Your task to perform on an android device: Show me popular videos on Youtube Image 0: 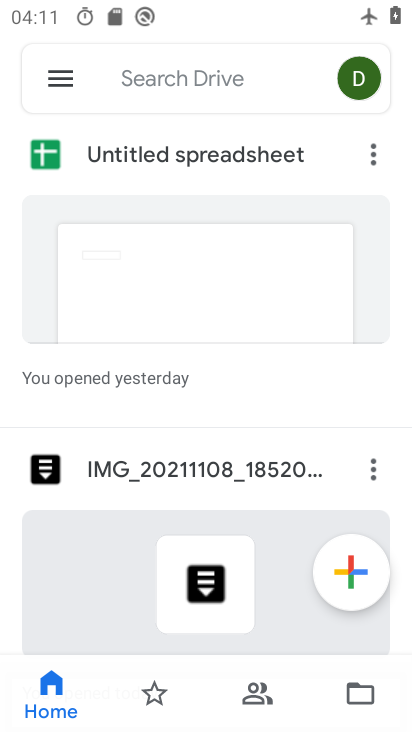
Step 0: press home button
Your task to perform on an android device: Show me popular videos on Youtube Image 1: 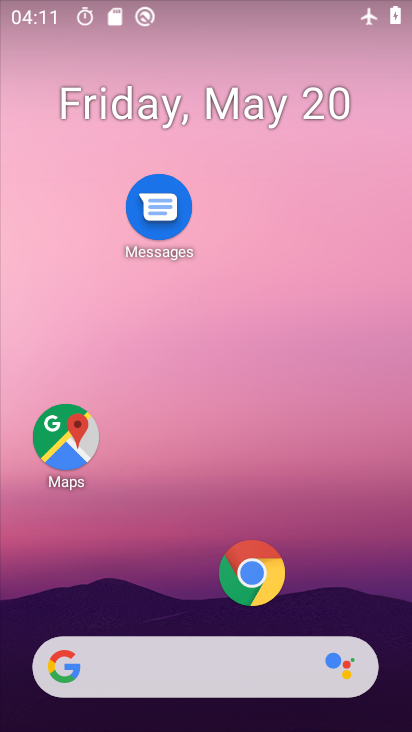
Step 1: drag from (200, 618) to (203, 143)
Your task to perform on an android device: Show me popular videos on Youtube Image 2: 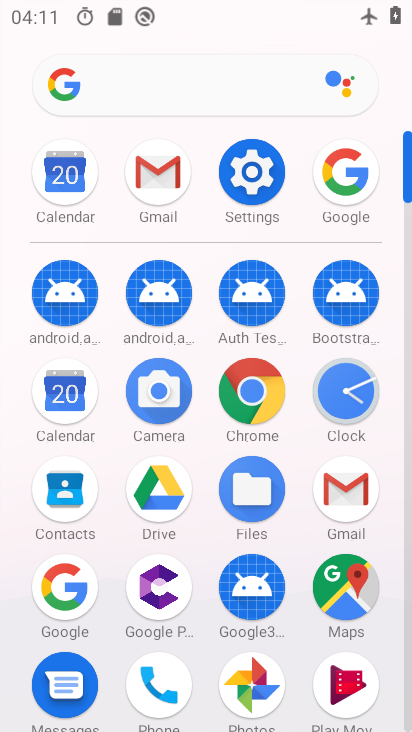
Step 2: drag from (302, 629) to (290, 157)
Your task to perform on an android device: Show me popular videos on Youtube Image 3: 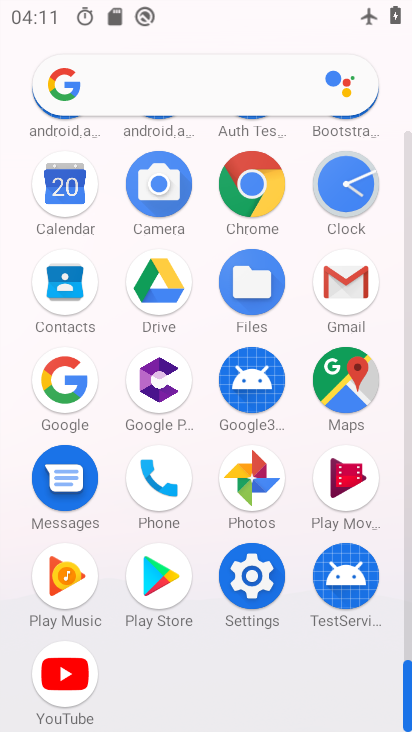
Step 3: click (43, 679)
Your task to perform on an android device: Show me popular videos on Youtube Image 4: 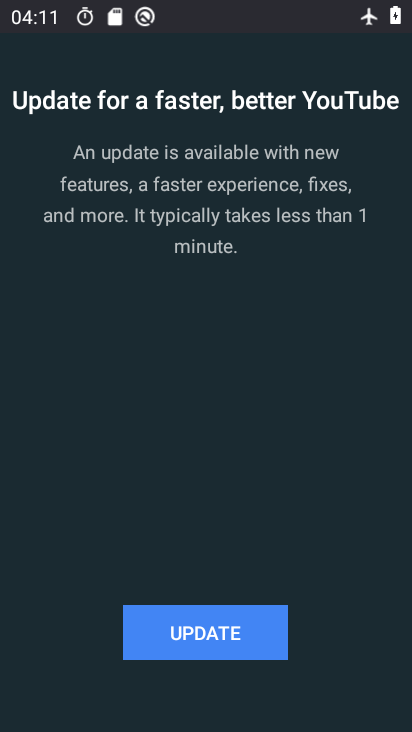
Step 4: click (249, 630)
Your task to perform on an android device: Show me popular videos on Youtube Image 5: 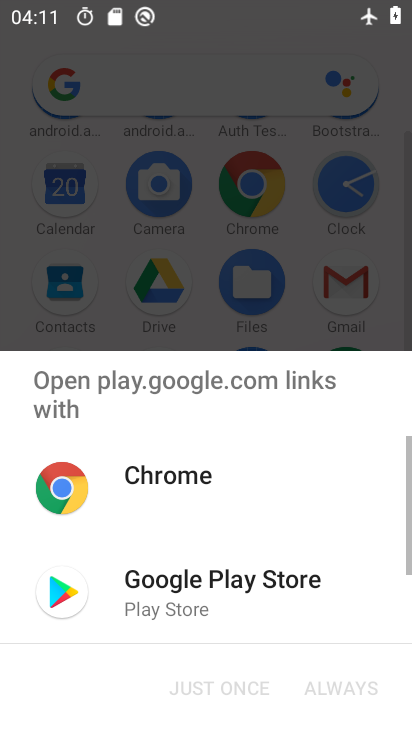
Step 5: click (195, 571)
Your task to perform on an android device: Show me popular videos on Youtube Image 6: 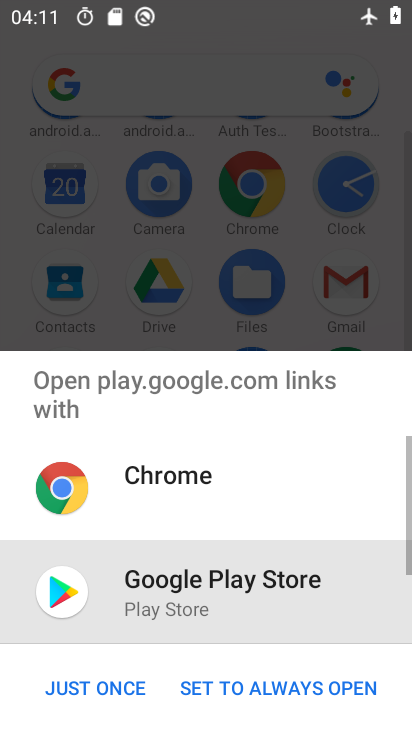
Step 6: click (206, 684)
Your task to perform on an android device: Show me popular videos on Youtube Image 7: 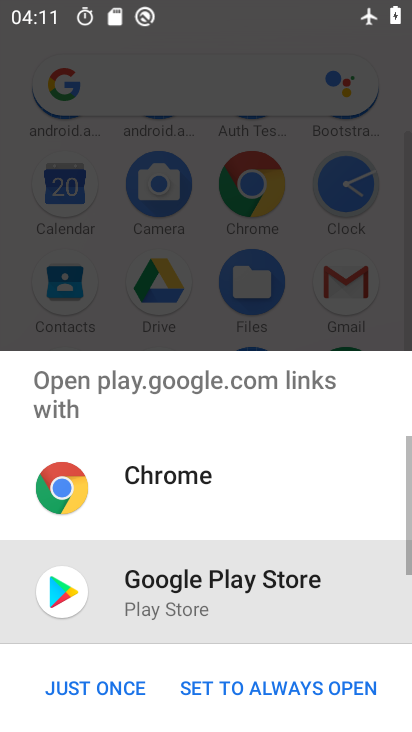
Step 7: drag from (206, 684) to (105, 679)
Your task to perform on an android device: Show me popular videos on Youtube Image 8: 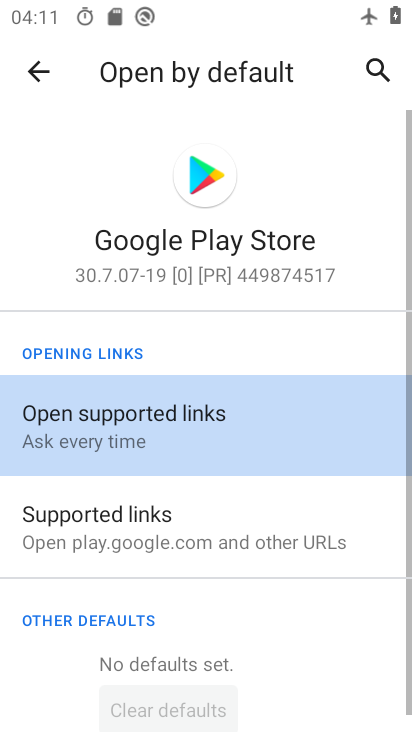
Step 8: click (22, 68)
Your task to perform on an android device: Show me popular videos on Youtube Image 9: 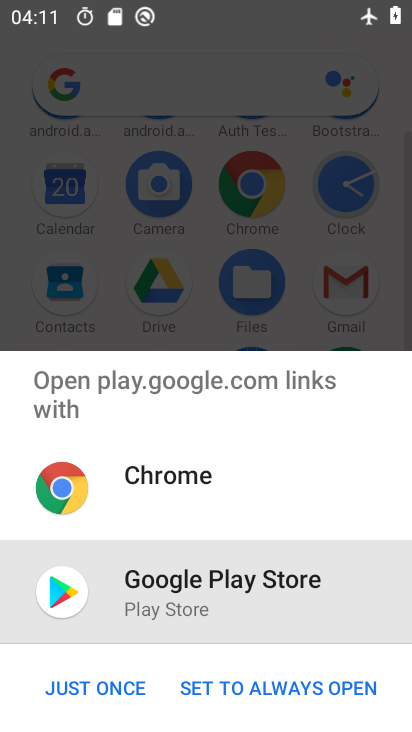
Step 9: click (112, 689)
Your task to perform on an android device: Show me popular videos on Youtube Image 10: 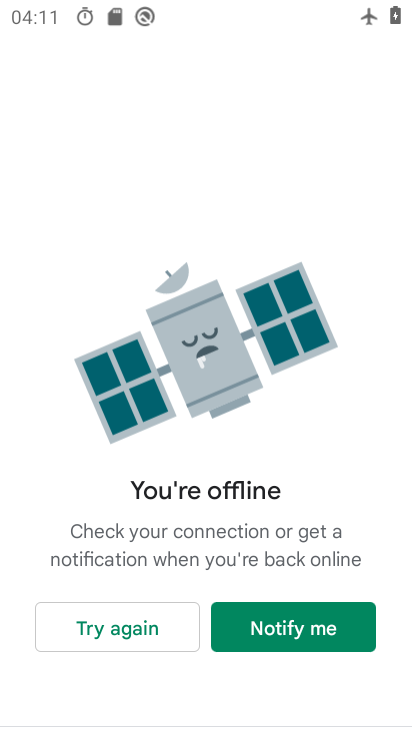
Step 10: task complete